Your task to perform on an android device: see sites visited before in the chrome app Image 0: 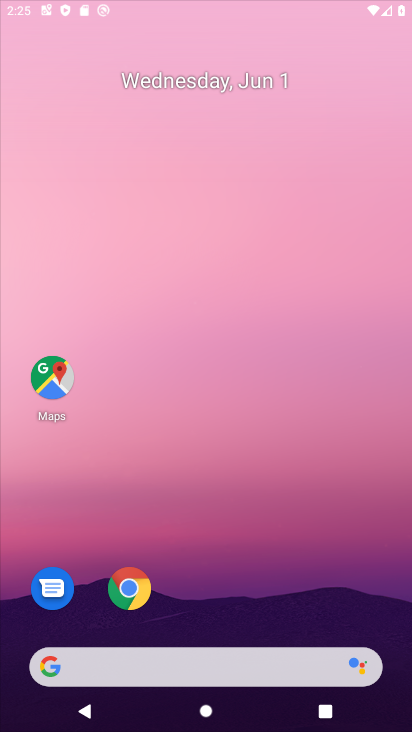
Step 0: drag from (230, 582) to (229, 149)
Your task to perform on an android device: see sites visited before in the chrome app Image 1: 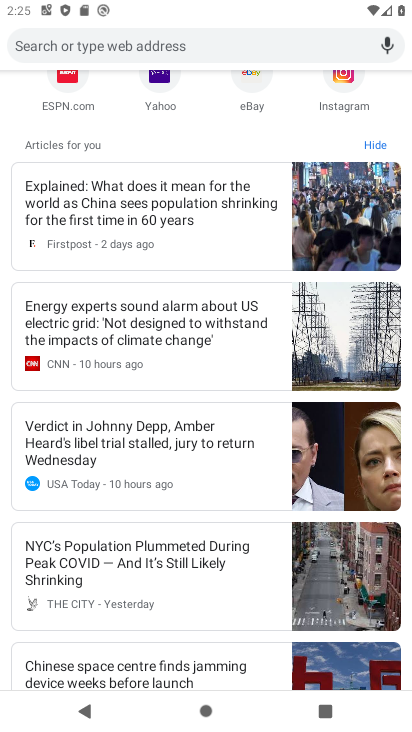
Step 1: press back button
Your task to perform on an android device: see sites visited before in the chrome app Image 2: 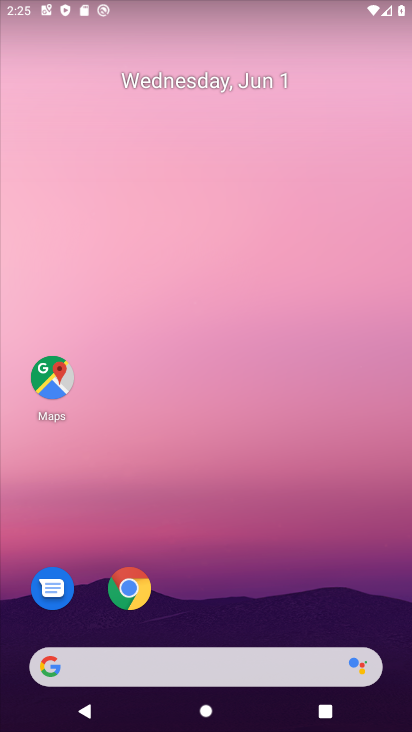
Step 2: click (135, 588)
Your task to perform on an android device: see sites visited before in the chrome app Image 3: 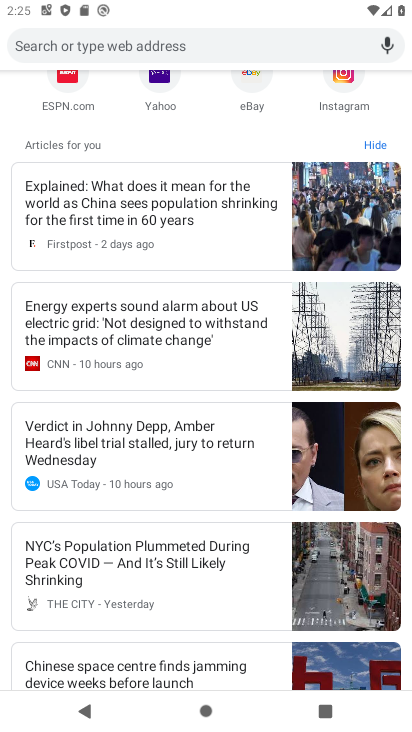
Step 3: task complete